Your task to perform on an android device: Open the stopwatch Image 0: 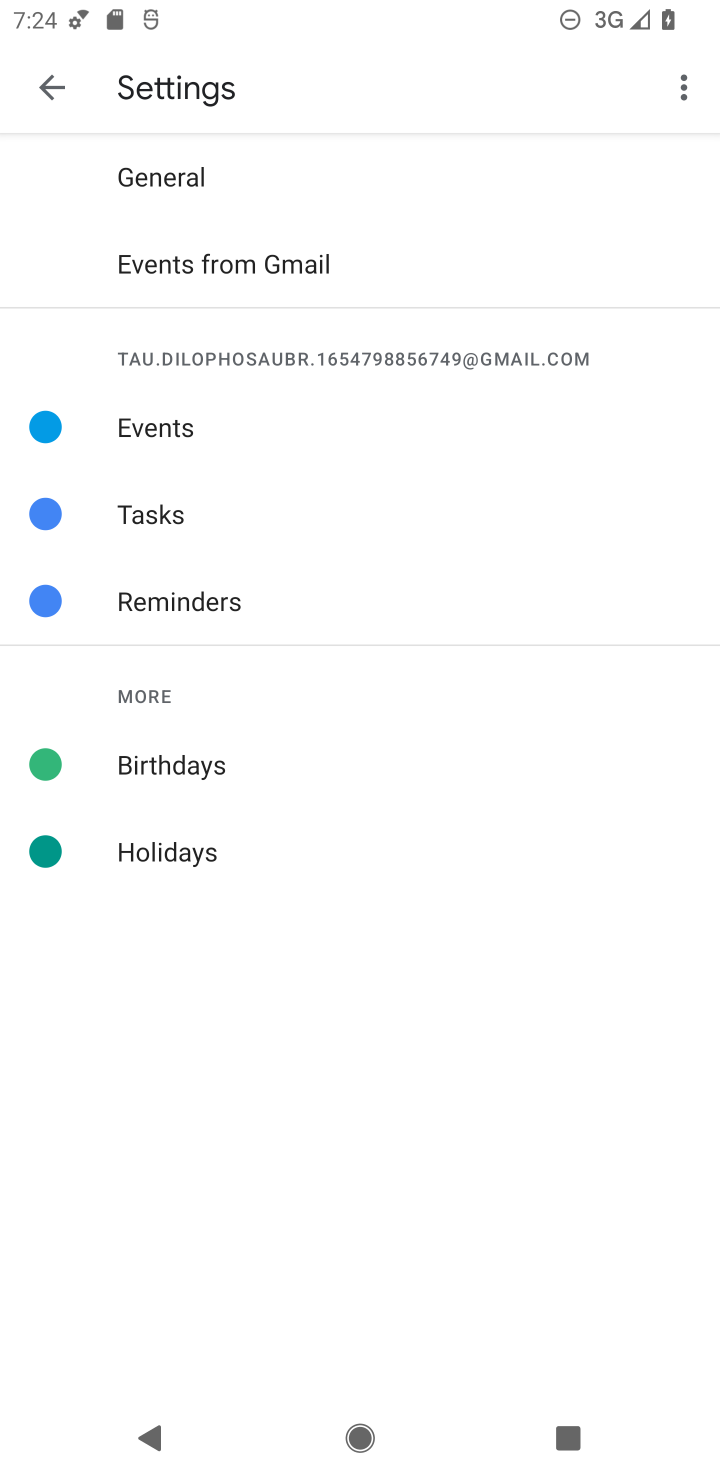
Step 0: press home button
Your task to perform on an android device: Open the stopwatch Image 1: 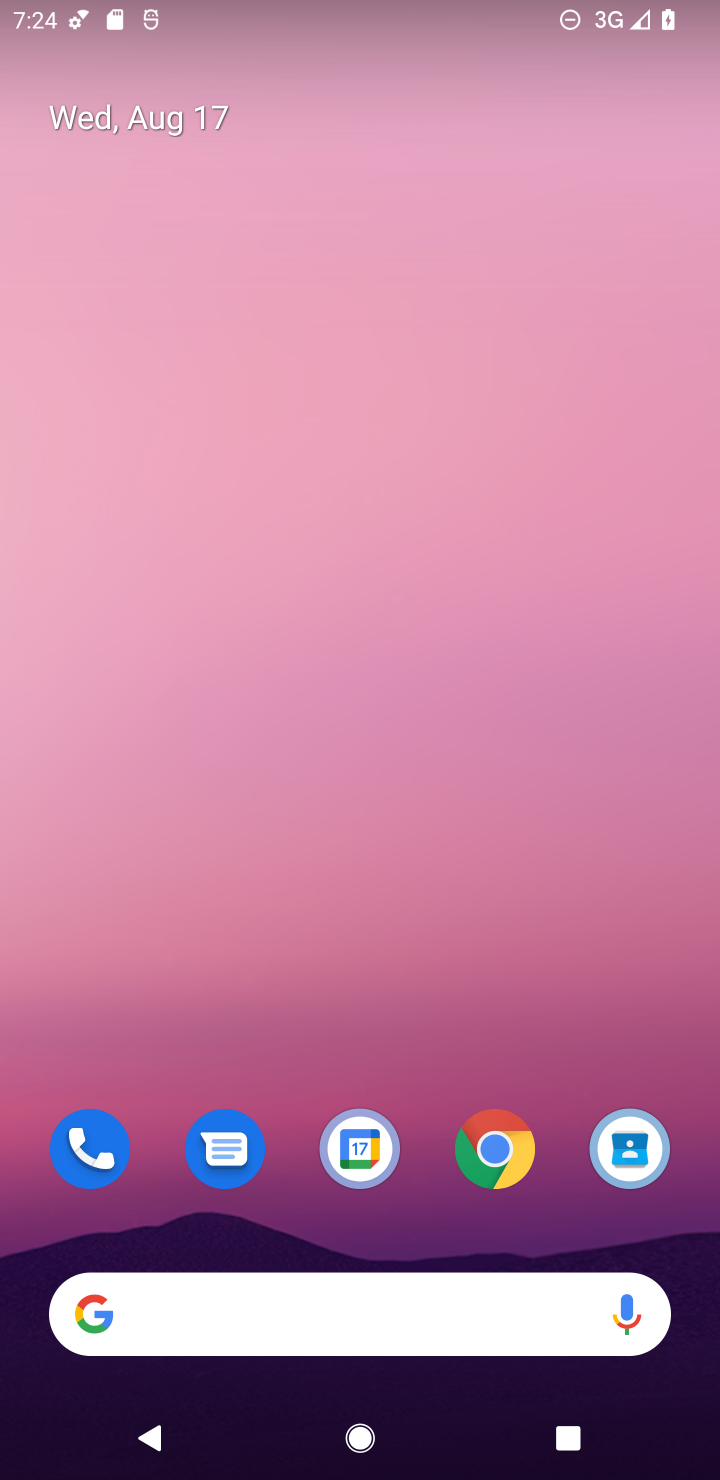
Step 1: drag from (413, 1224) to (404, 284)
Your task to perform on an android device: Open the stopwatch Image 2: 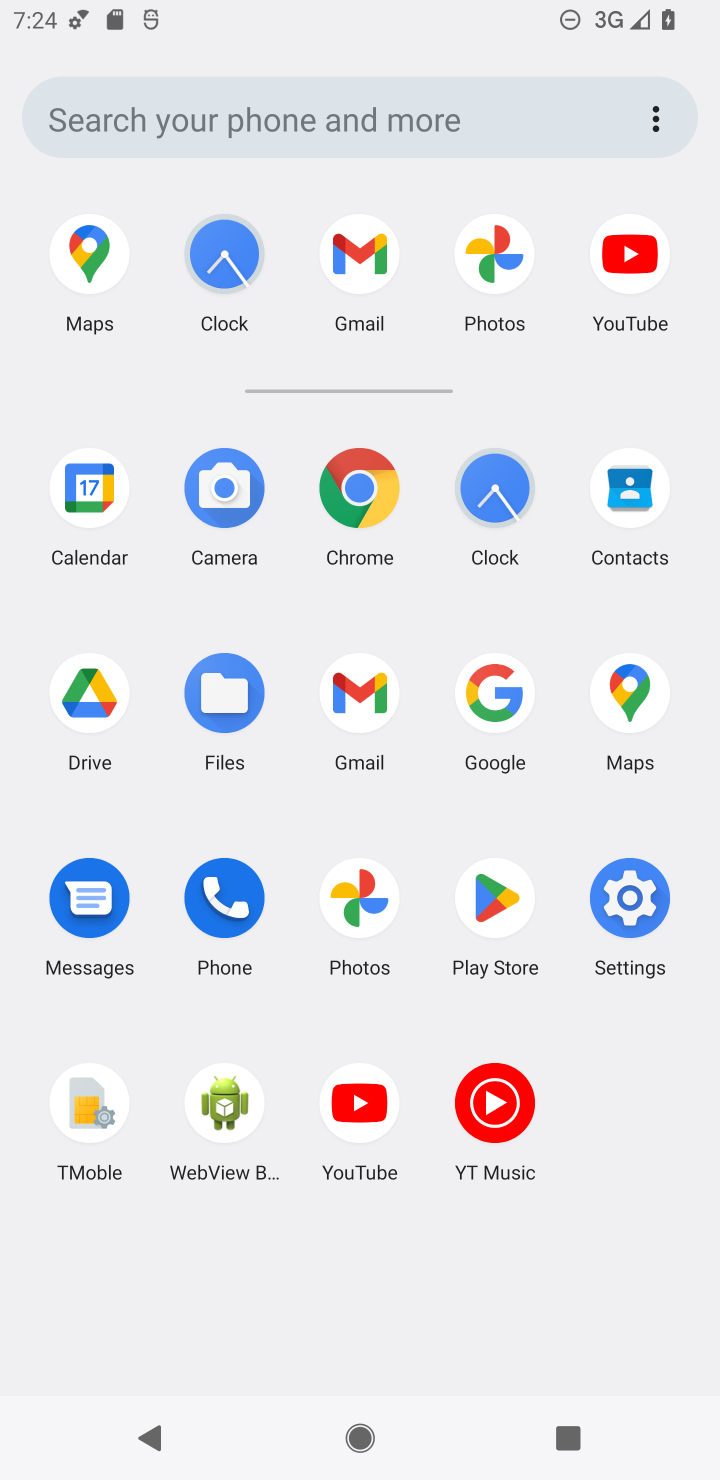
Step 2: click (220, 244)
Your task to perform on an android device: Open the stopwatch Image 3: 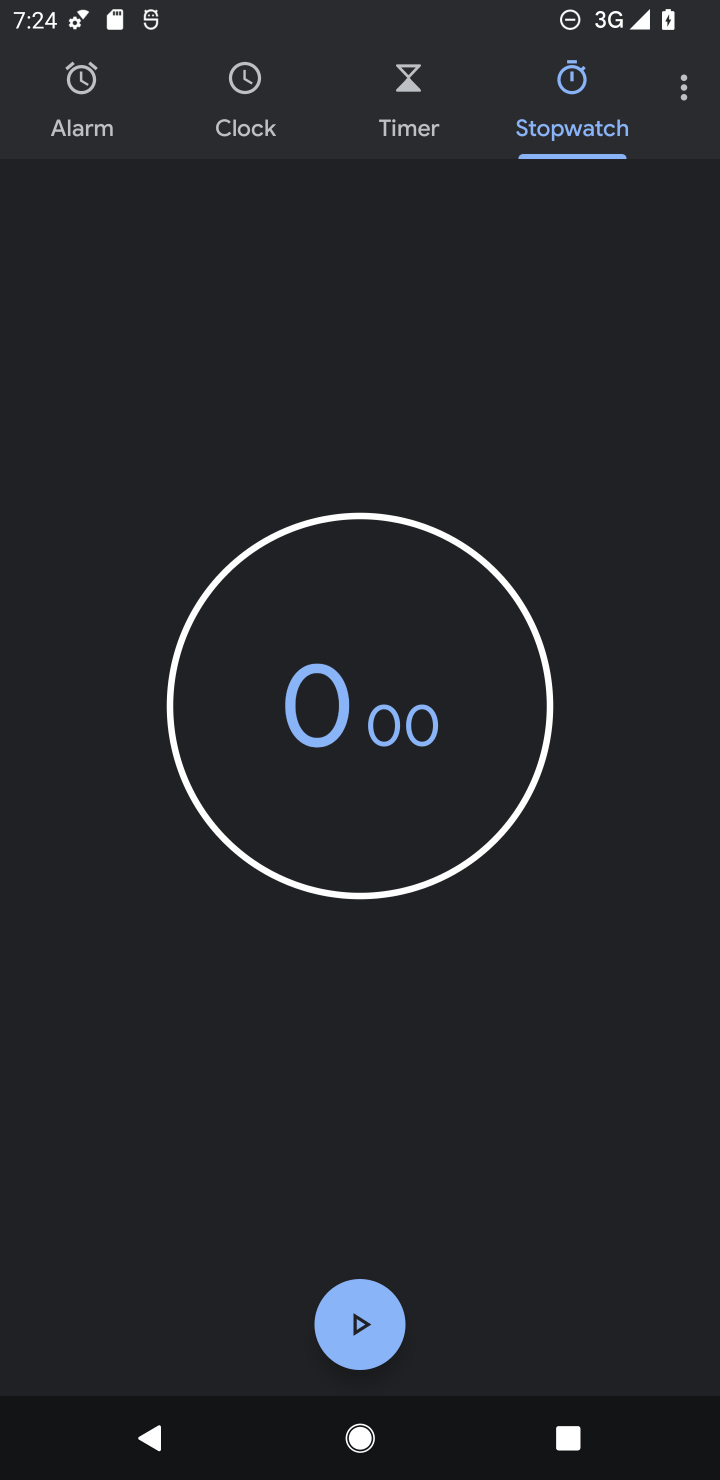
Step 3: task complete